Your task to perform on an android device: Go to wifi settings Image 0: 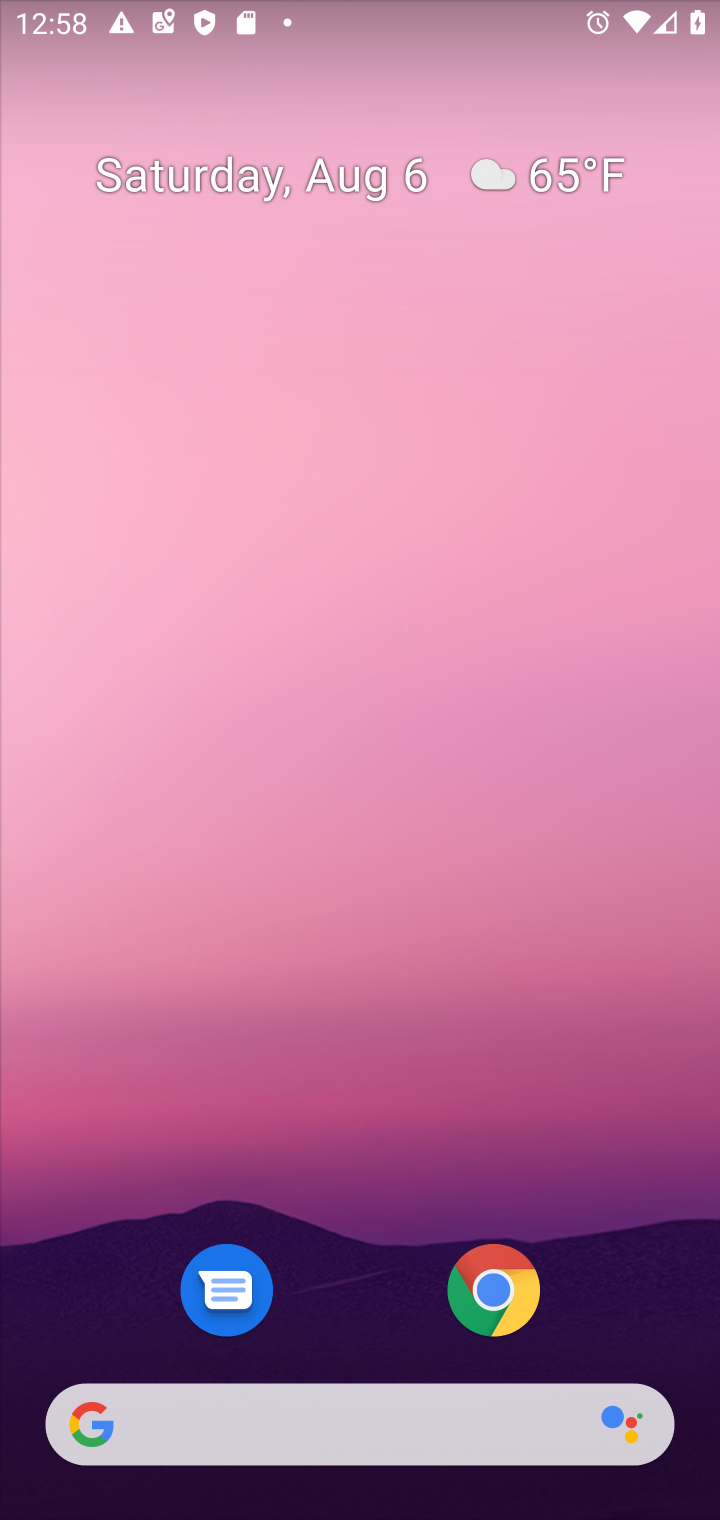
Step 0: drag from (386, 1349) to (369, 184)
Your task to perform on an android device: Go to wifi settings Image 1: 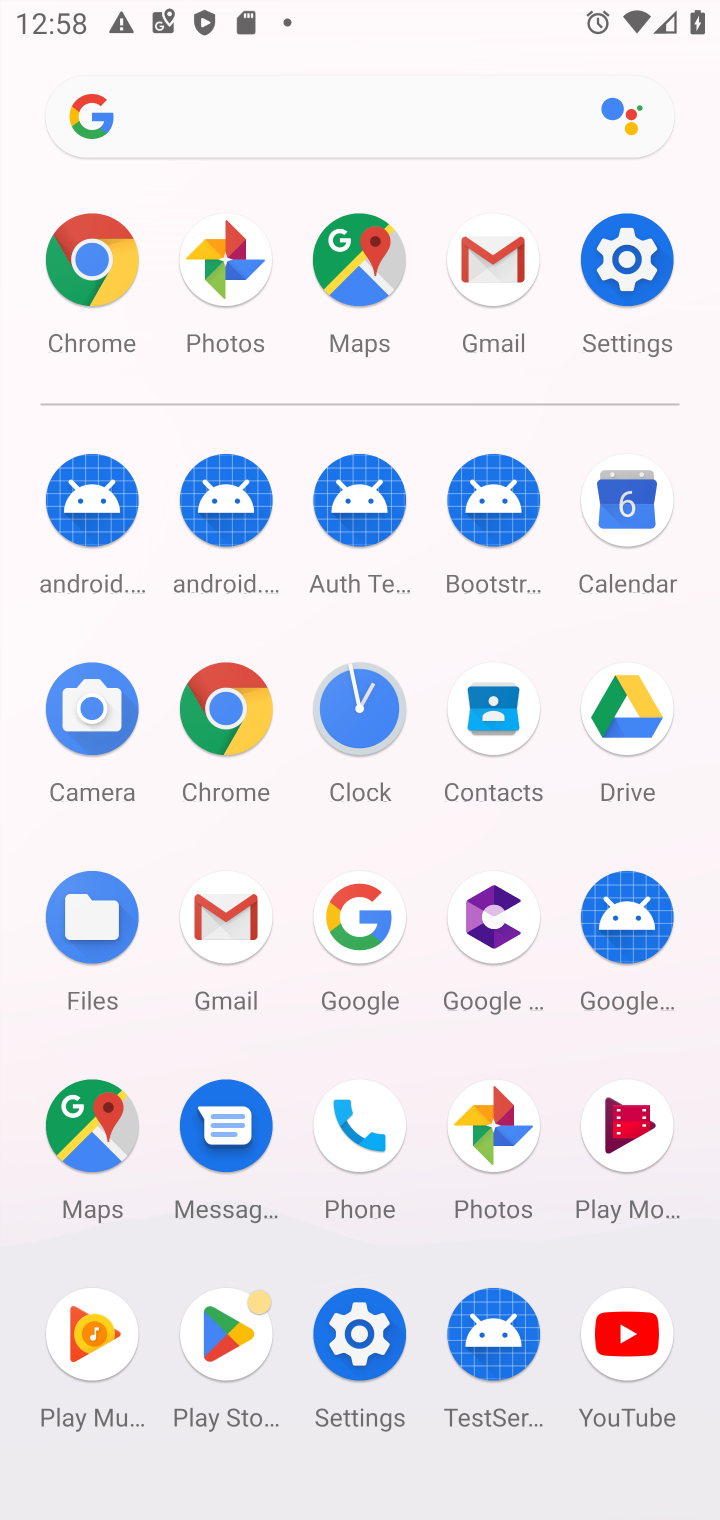
Step 1: click (625, 243)
Your task to perform on an android device: Go to wifi settings Image 2: 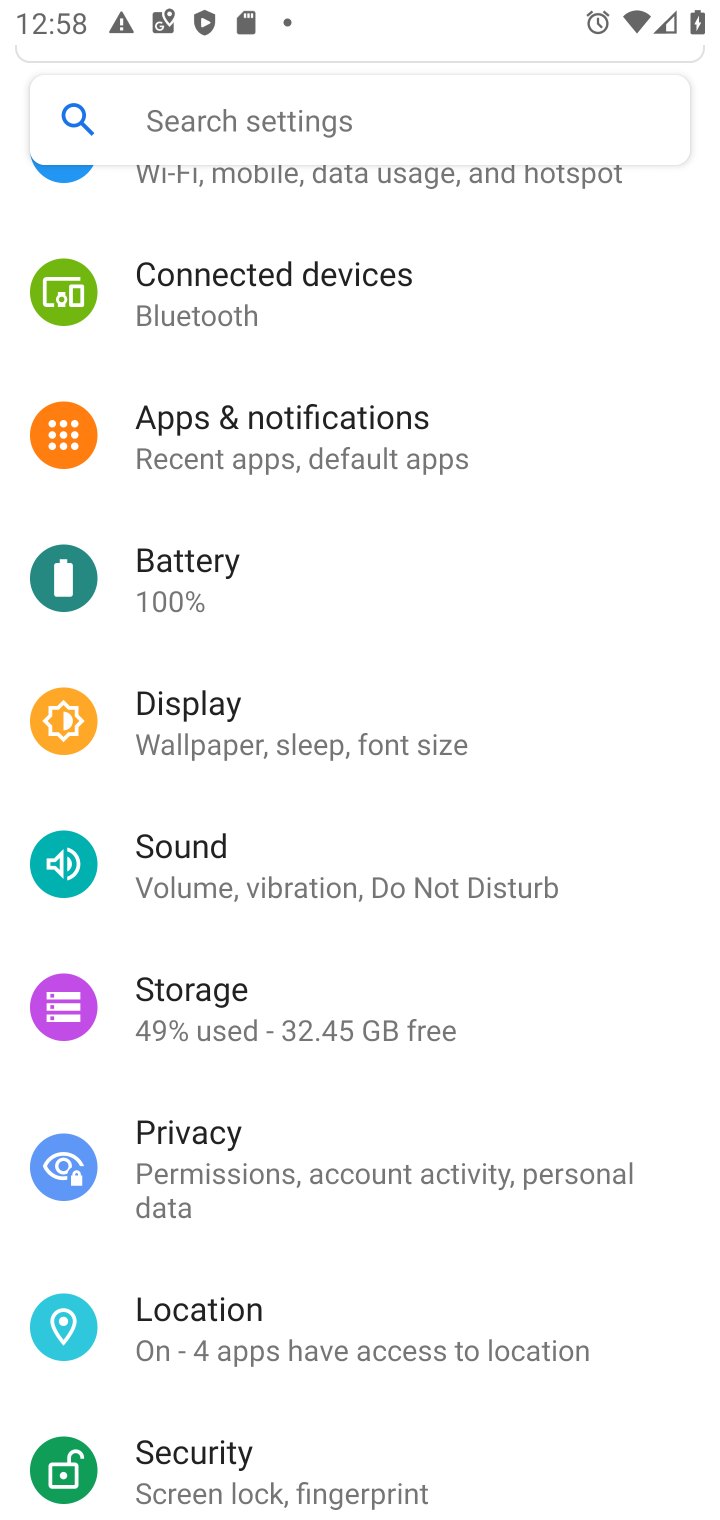
Step 2: drag from (283, 356) to (382, 1329)
Your task to perform on an android device: Go to wifi settings Image 3: 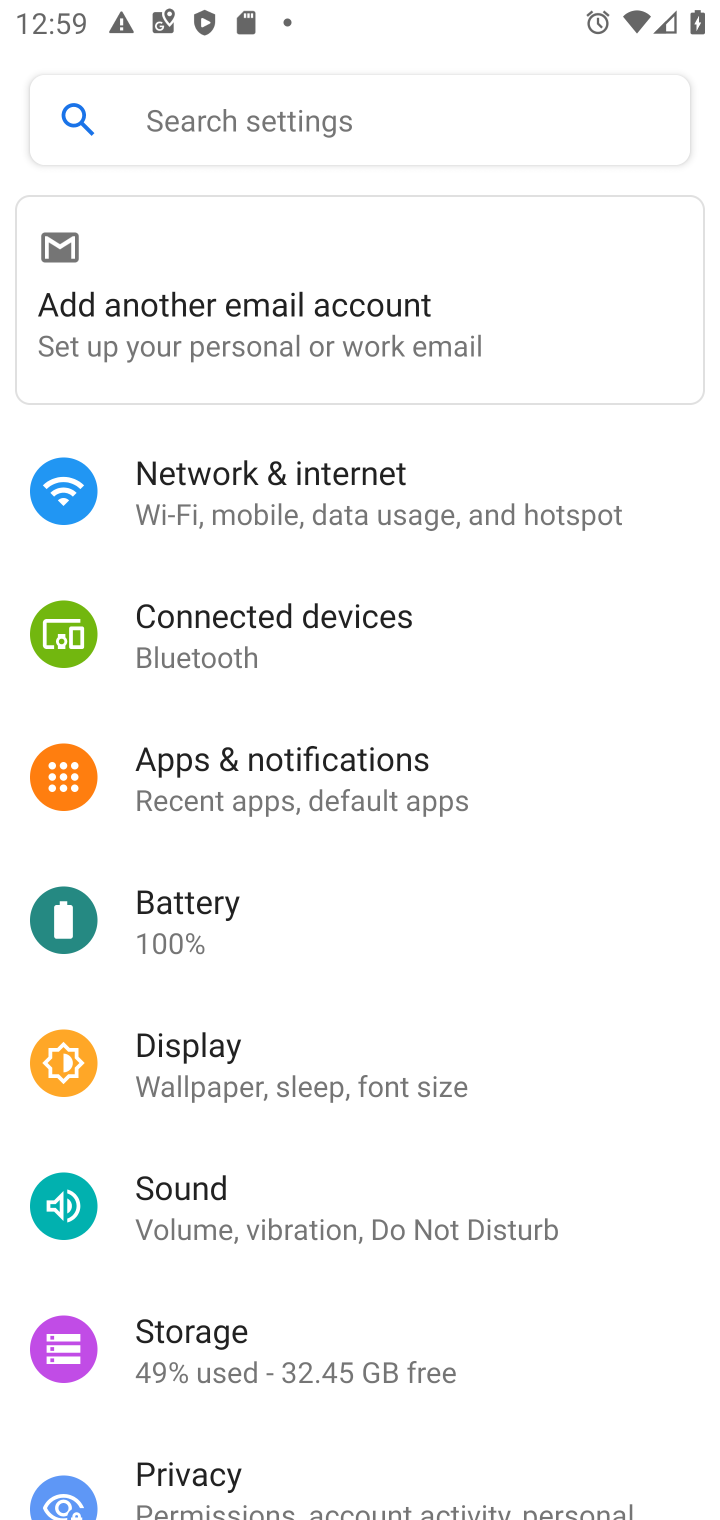
Step 3: click (304, 484)
Your task to perform on an android device: Go to wifi settings Image 4: 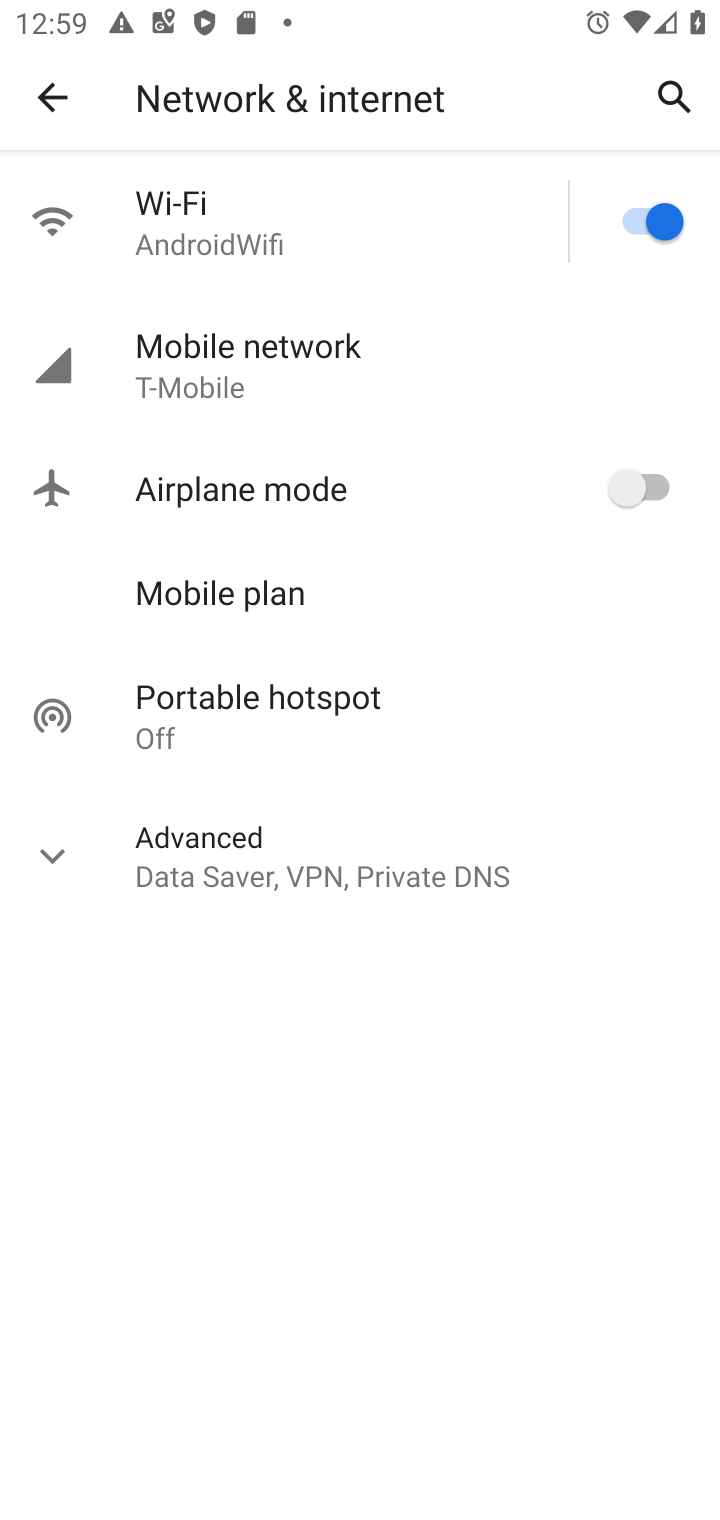
Step 4: click (48, 848)
Your task to perform on an android device: Go to wifi settings Image 5: 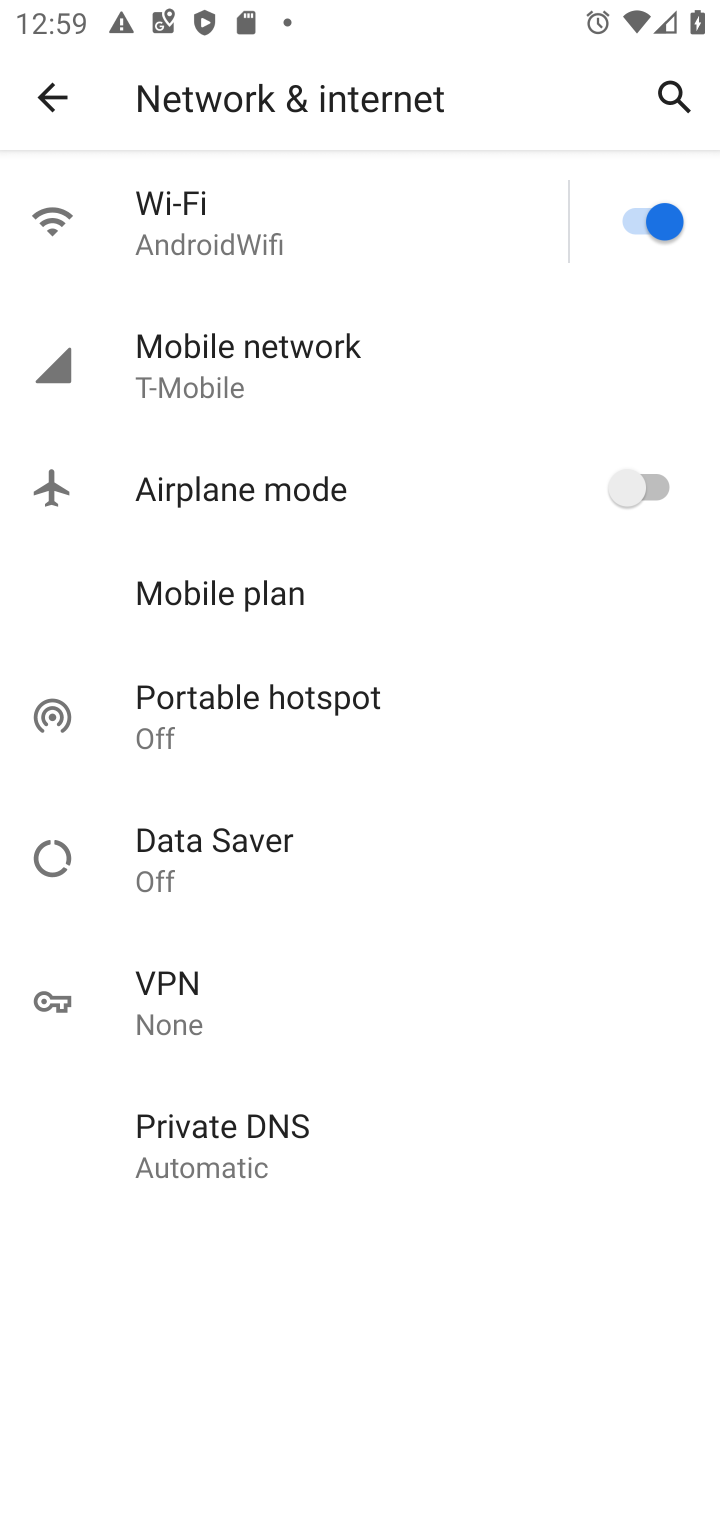
Step 5: click (251, 207)
Your task to perform on an android device: Go to wifi settings Image 6: 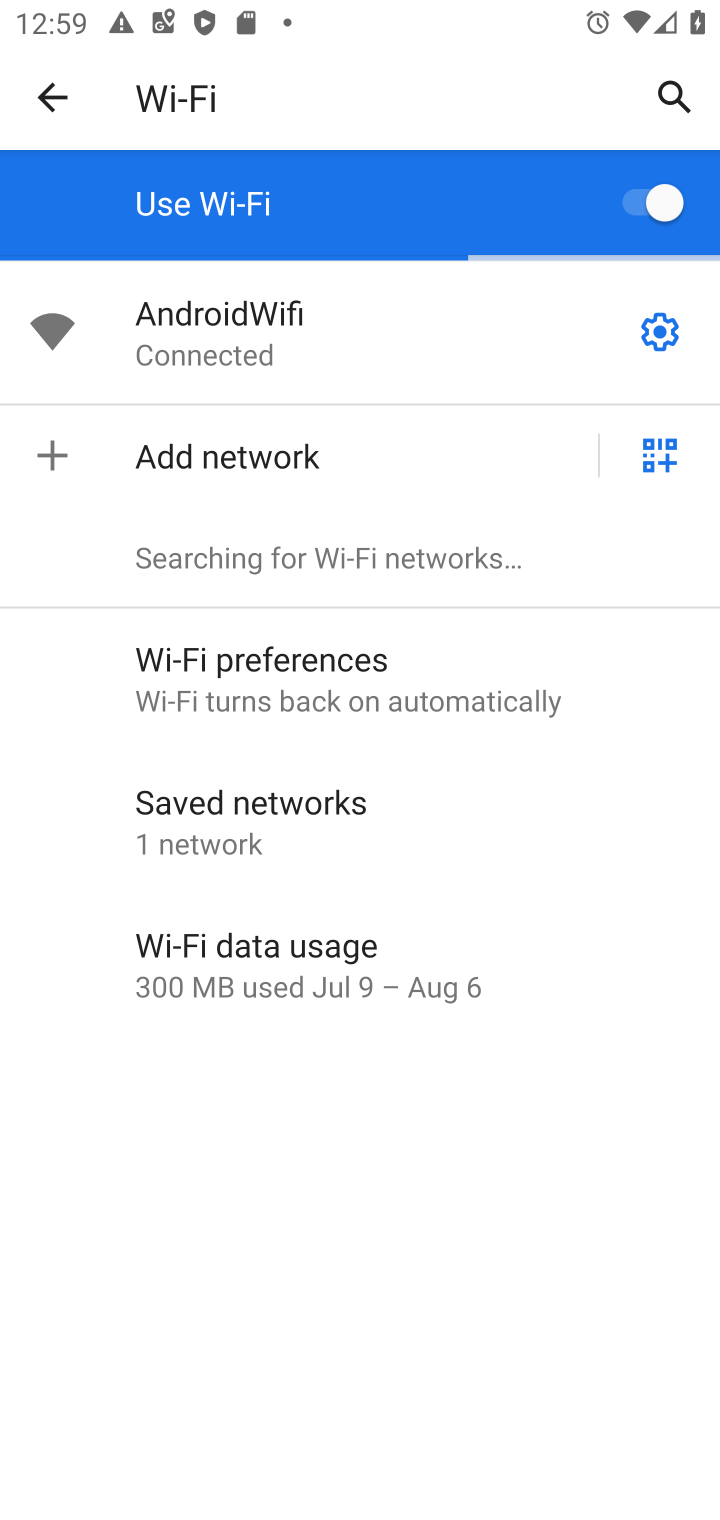
Step 6: task complete